Your task to perform on an android device: change the clock display to digital Image 0: 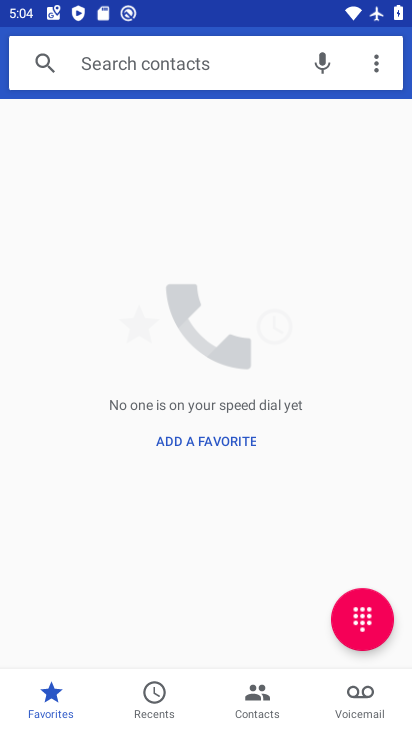
Step 0: press home button
Your task to perform on an android device: change the clock display to digital Image 1: 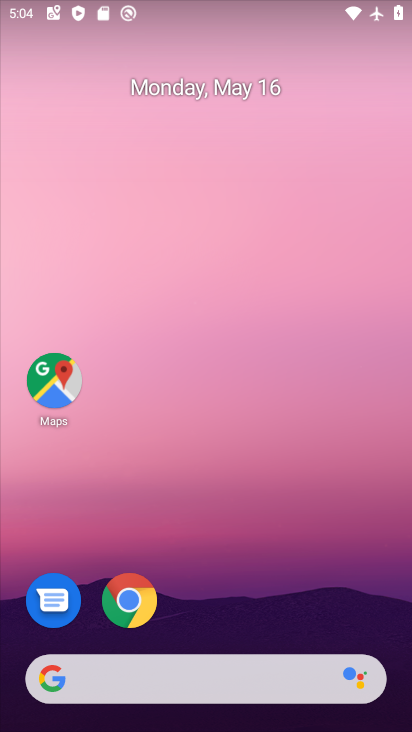
Step 1: drag from (215, 649) to (189, 134)
Your task to perform on an android device: change the clock display to digital Image 2: 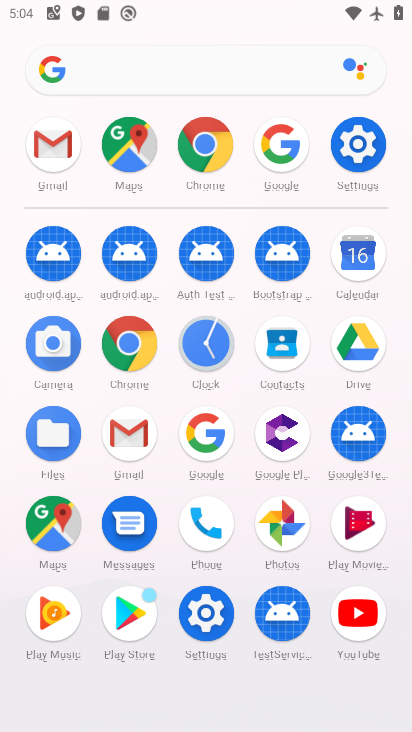
Step 2: click (191, 378)
Your task to perform on an android device: change the clock display to digital Image 3: 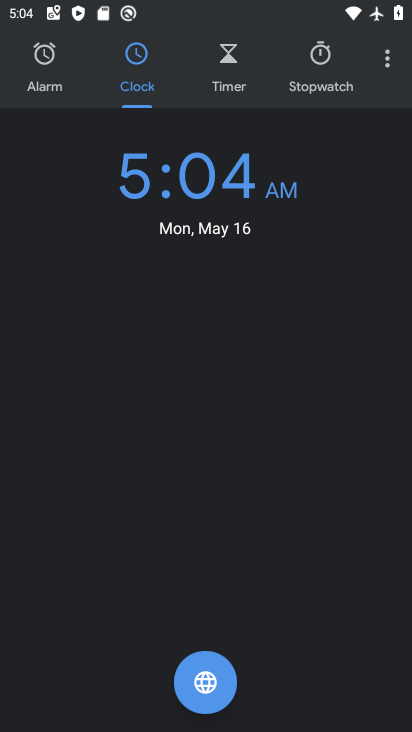
Step 3: click (390, 68)
Your task to perform on an android device: change the clock display to digital Image 4: 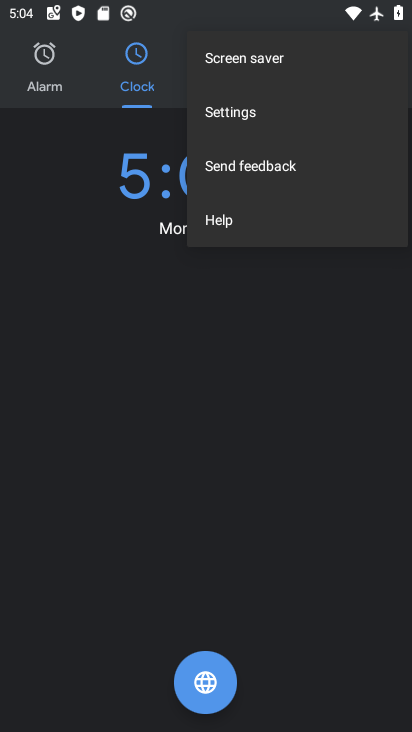
Step 4: click (259, 109)
Your task to perform on an android device: change the clock display to digital Image 5: 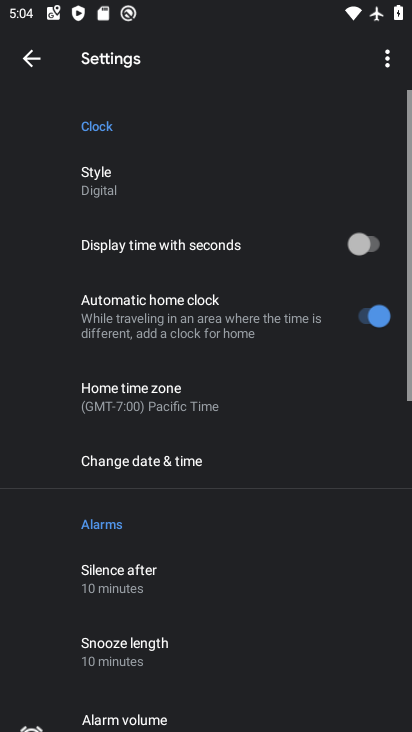
Step 5: click (167, 179)
Your task to perform on an android device: change the clock display to digital Image 6: 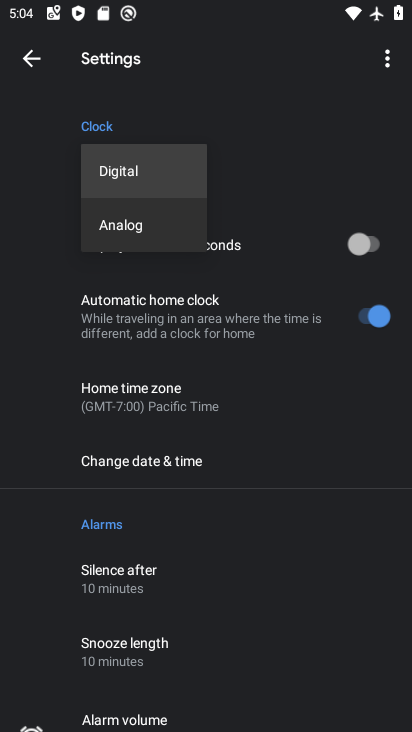
Step 6: click (101, 176)
Your task to perform on an android device: change the clock display to digital Image 7: 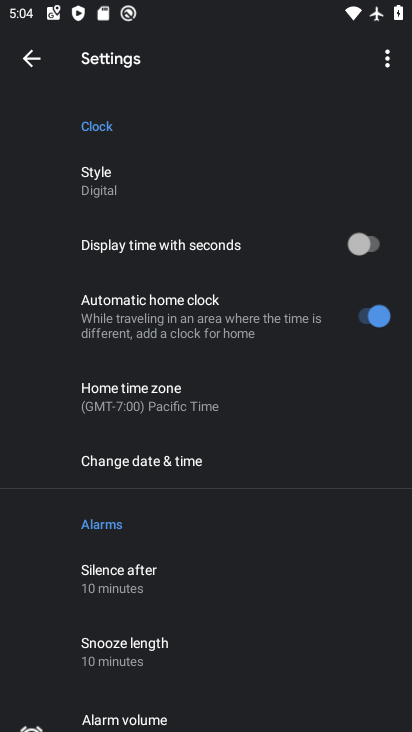
Step 7: task complete